Your task to perform on an android device: How much does a 2 bedroom apartment rent for in Seattle? Image 0: 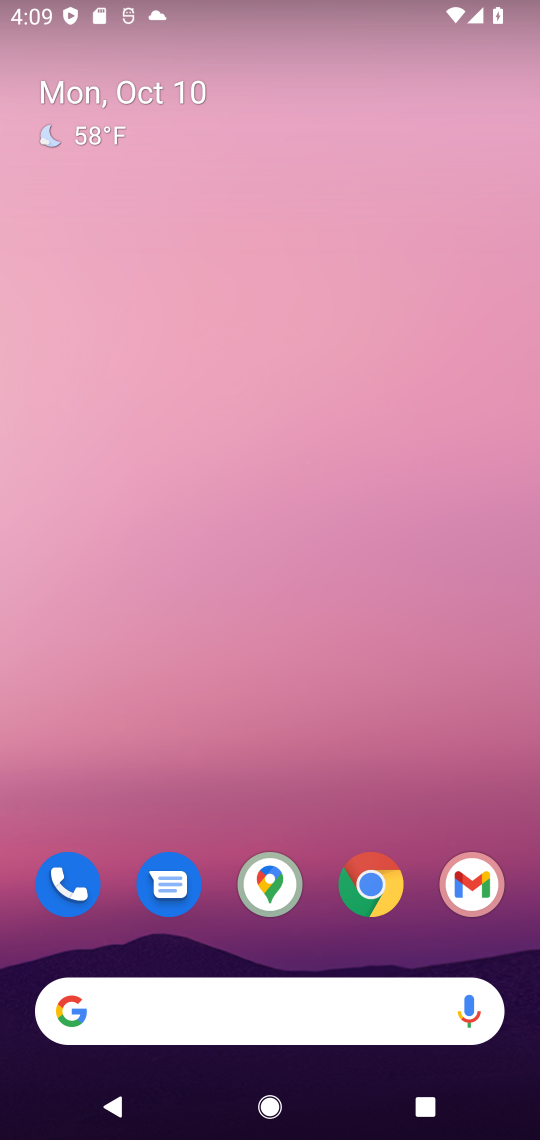
Step 0: click (381, 884)
Your task to perform on an android device: How much does a 2 bedroom apartment rent for in Seattle? Image 1: 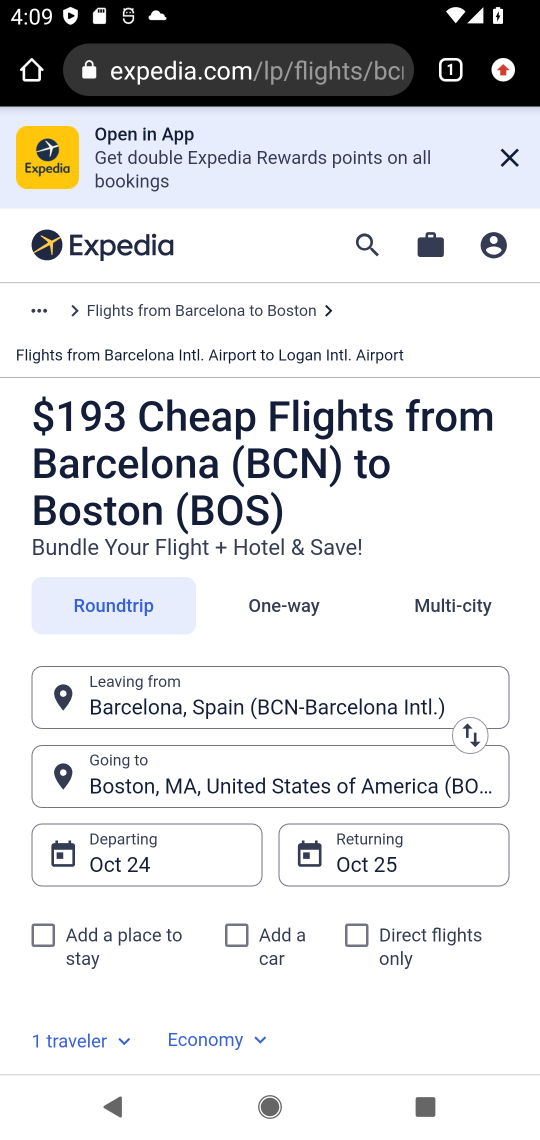
Step 1: click (246, 87)
Your task to perform on an android device: How much does a 2 bedroom apartment rent for in Seattle? Image 2: 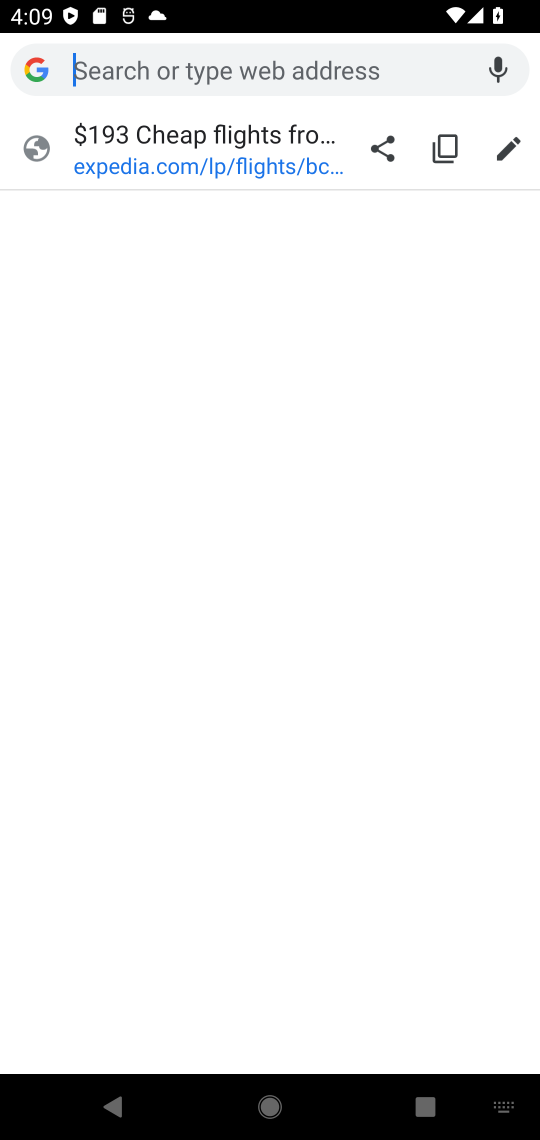
Step 2: type "How much does a 2 bedroom apartment rent for in Seattle?"
Your task to perform on an android device: How much does a 2 bedroom apartment rent for in Seattle? Image 3: 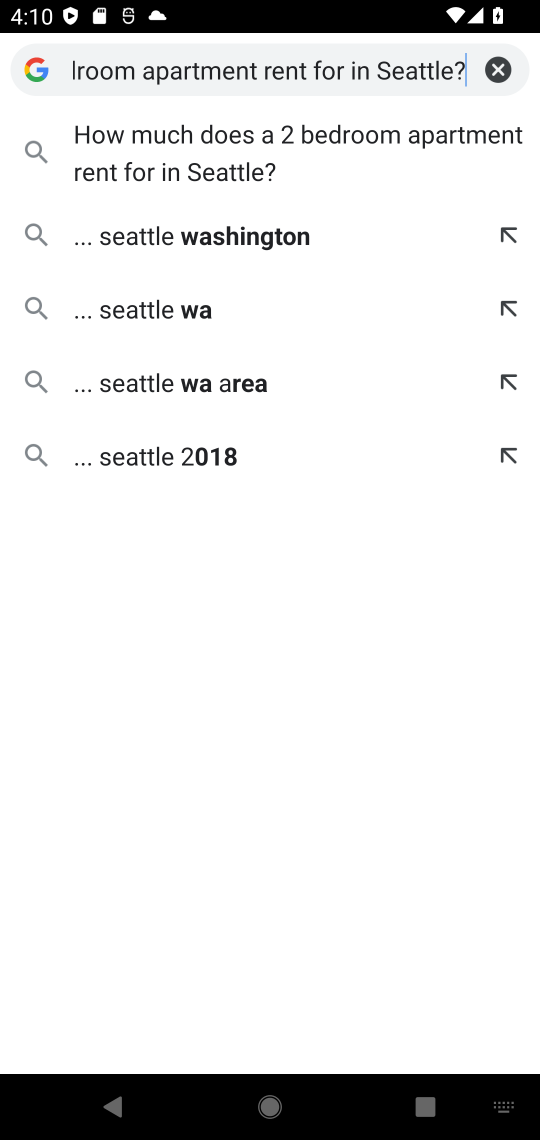
Step 3: click (225, 173)
Your task to perform on an android device: How much does a 2 bedroom apartment rent for in Seattle? Image 4: 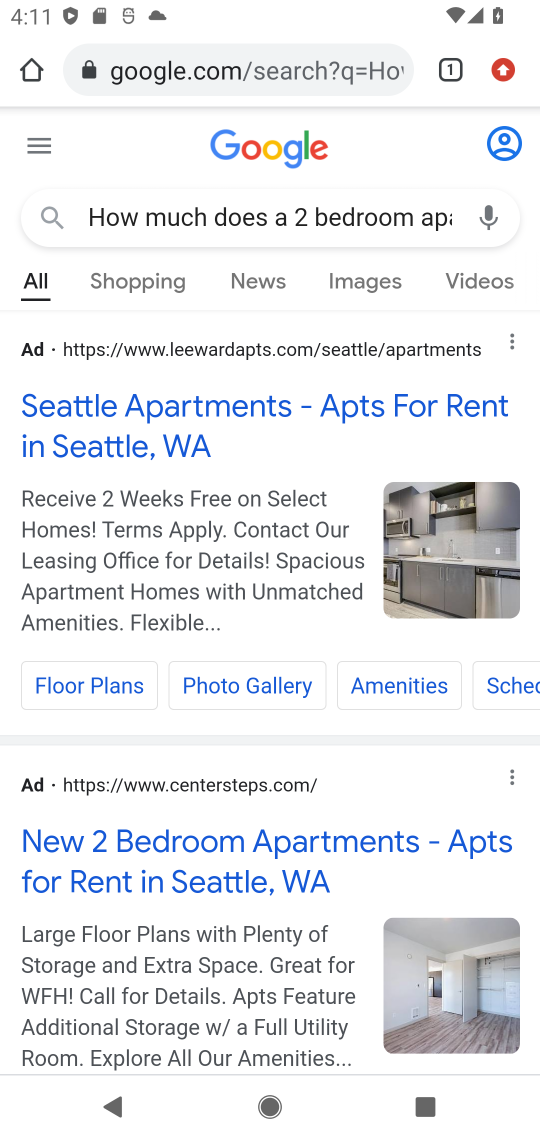
Step 4: click (141, 863)
Your task to perform on an android device: How much does a 2 bedroom apartment rent for in Seattle? Image 5: 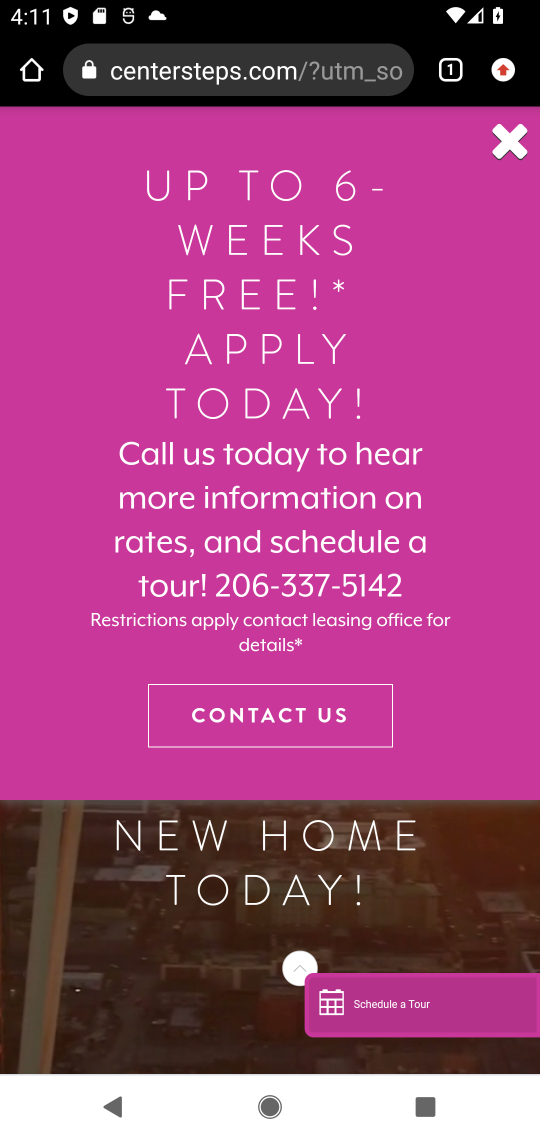
Step 5: click (509, 139)
Your task to perform on an android device: How much does a 2 bedroom apartment rent for in Seattle? Image 6: 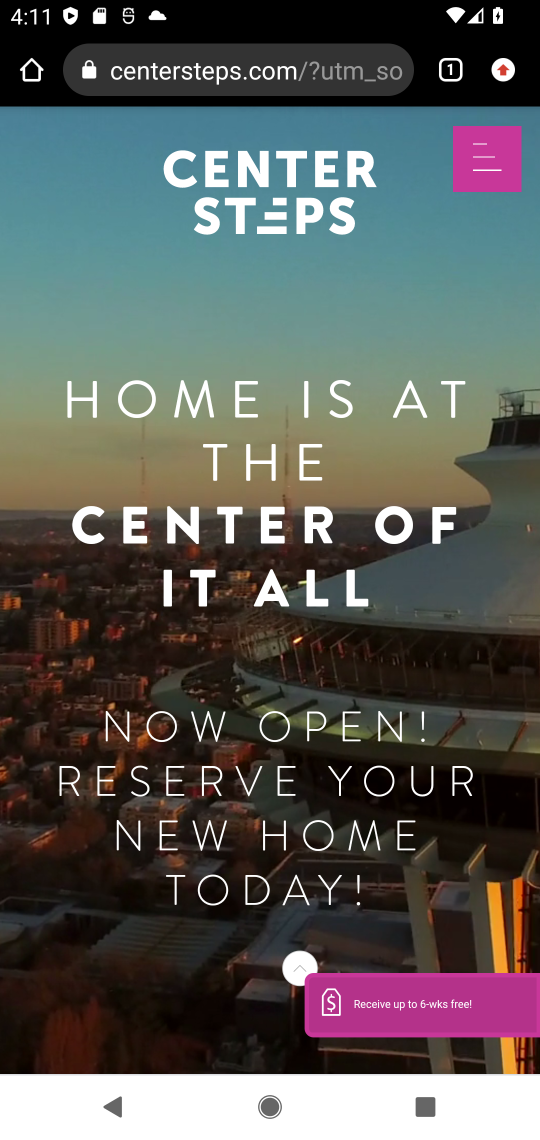
Step 6: drag from (322, 436) to (304, 244)
Your task to perform on an android device: How much does a 2 bedroom apartment rent for in Seattle? Image 7: 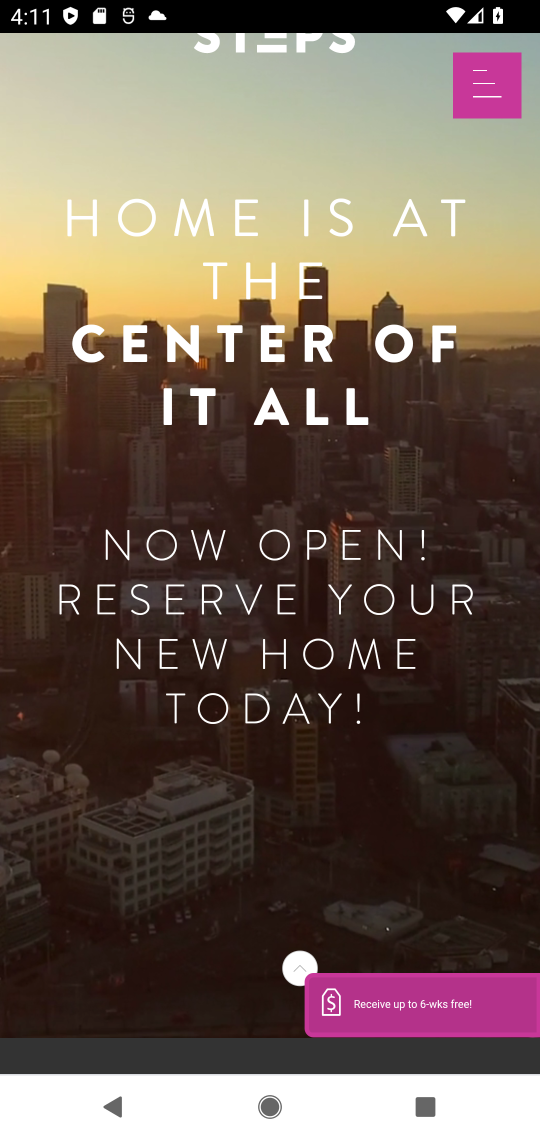
Step 7: press back button
Your task to perform on an android device: How much does a 2 bedroom apartment rent for in Seattle? Image 8: 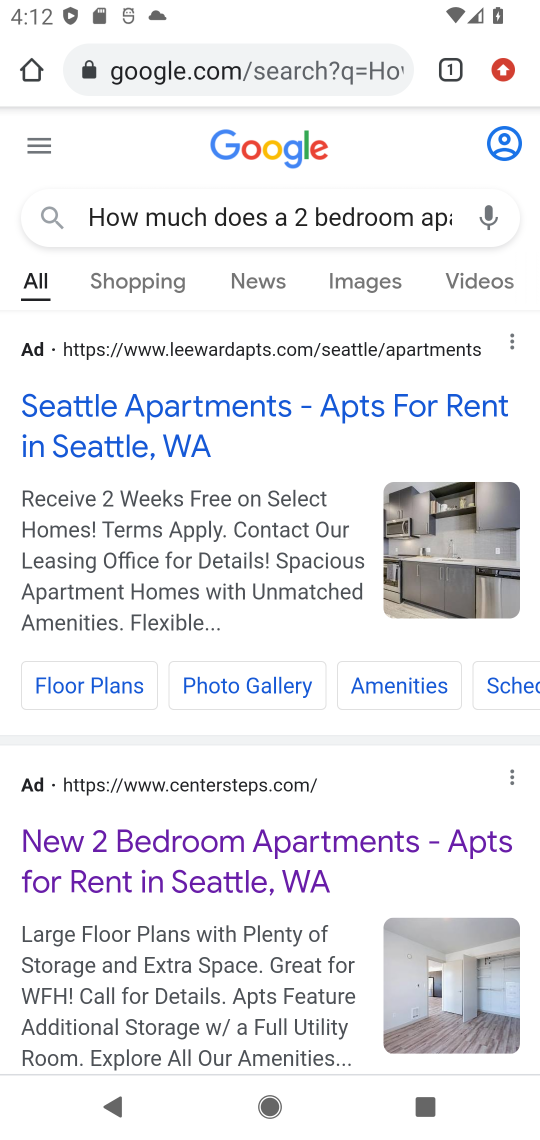
Step 8: drag from (272, 869) to (259, 336)
Your task to perform on an android device: How much does a 2 bedroom apartment rent for in Seattle? Image 9: 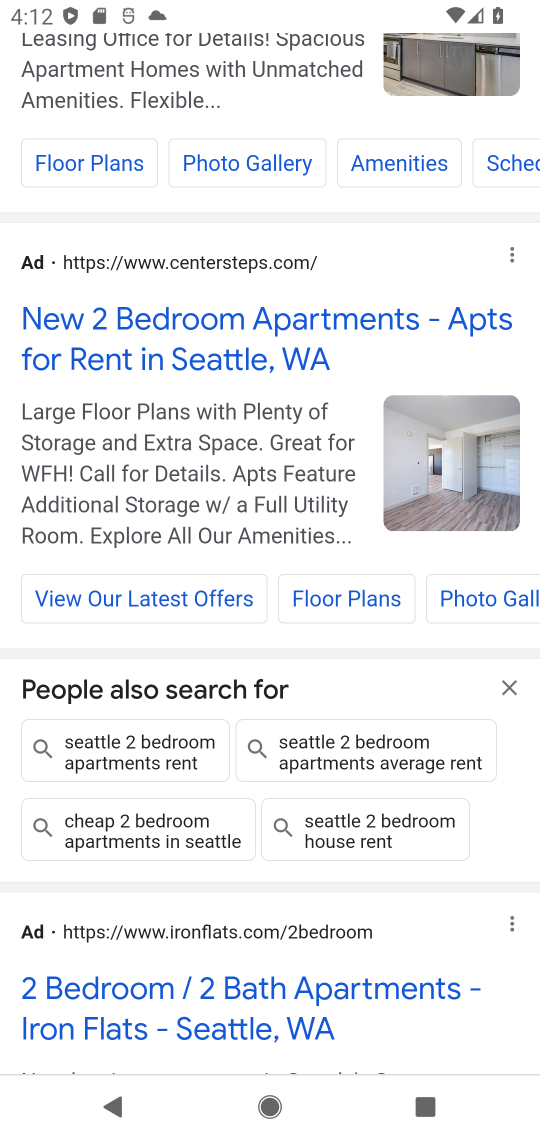
Step 9: drag from (212, 770) to (216, 344)
Your task to perform on an android device: How much does a 2 bedroom apartment rent for in Seattle? Image 10: 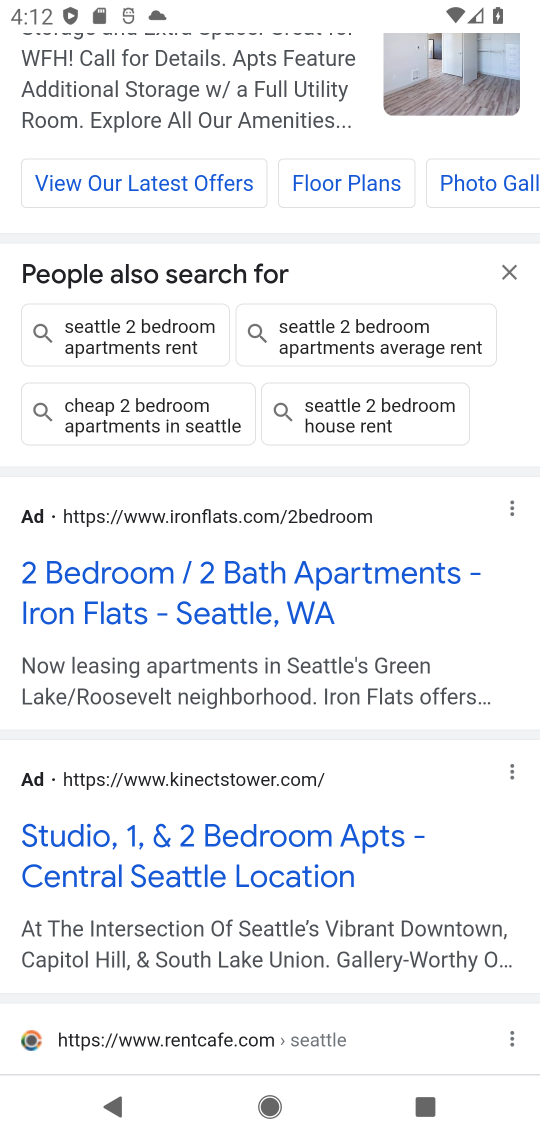
Step 10: click (178, 617)
Your task to perform on an android device: How much does a 2 bedroom apartment rent for in Seattle? Image 11: 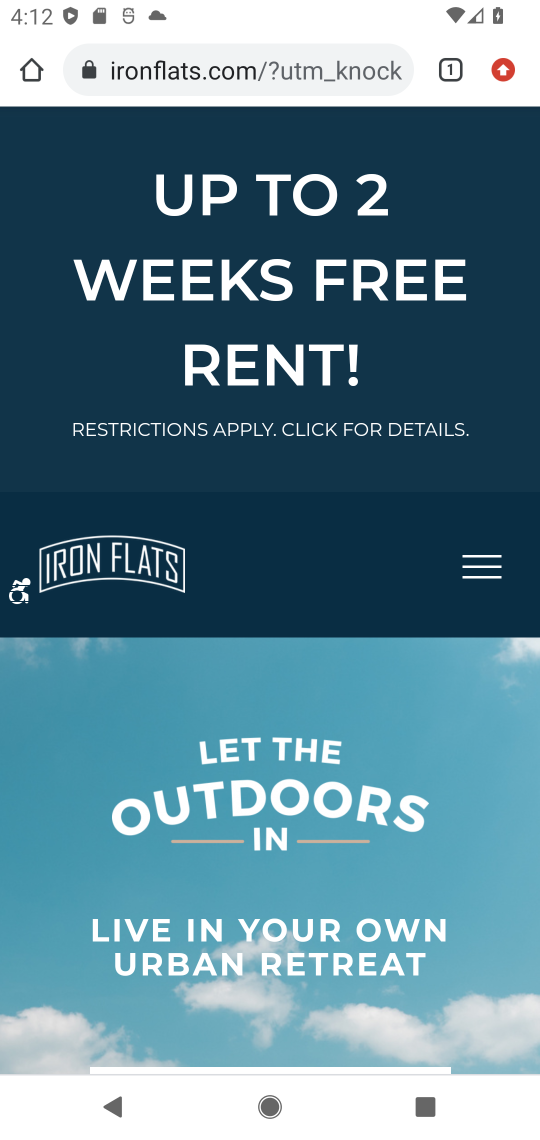
Step 11: drag from (219, 859) to (228, 213)
Your task to perform on an android device: How much does a 2 bedroom apartment rent for in Seattle? Image 12: 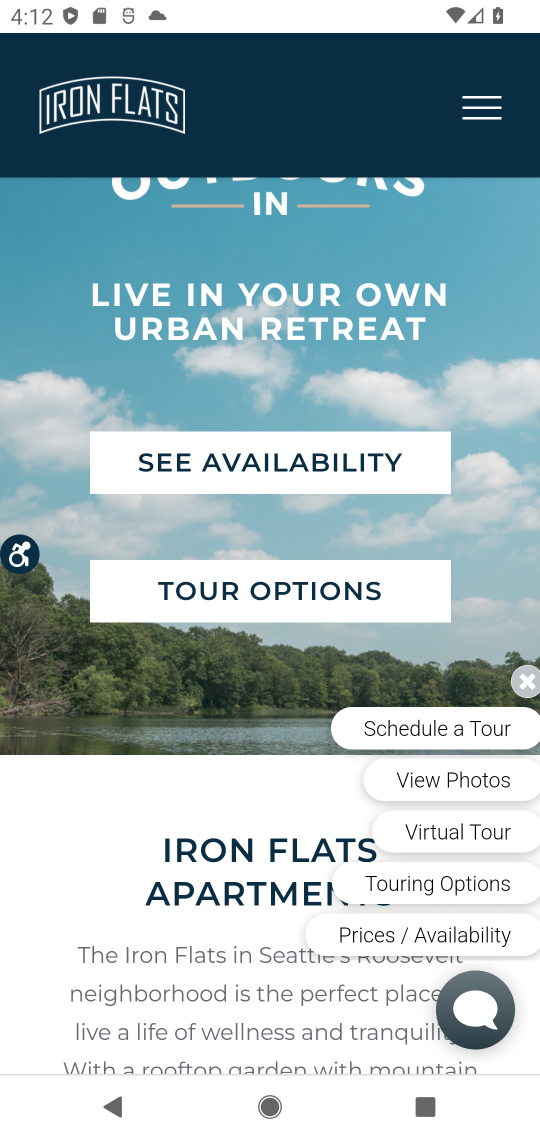
Step 12: drag from (153, 722) to (193, 87)
Your task to perform on an android device: How much does a 2 bedroom apartment rent for in Seattle? Image 13: 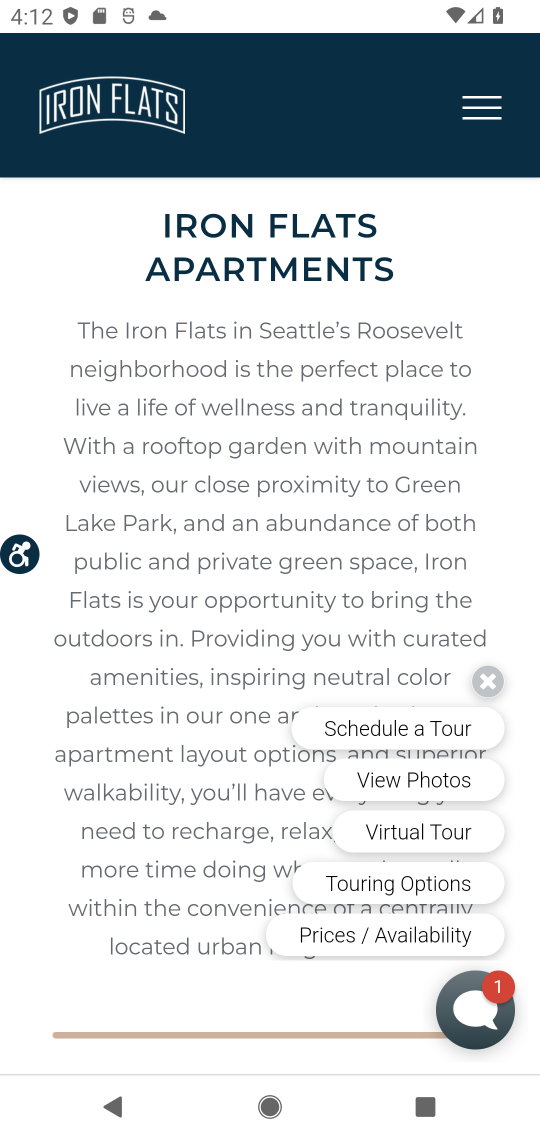
Step 13: drag from (103, 726) to (182, 189)
Your task to perform on an android device: How much does a 2 bedroom apartment rent for in Seattle? Image 14: 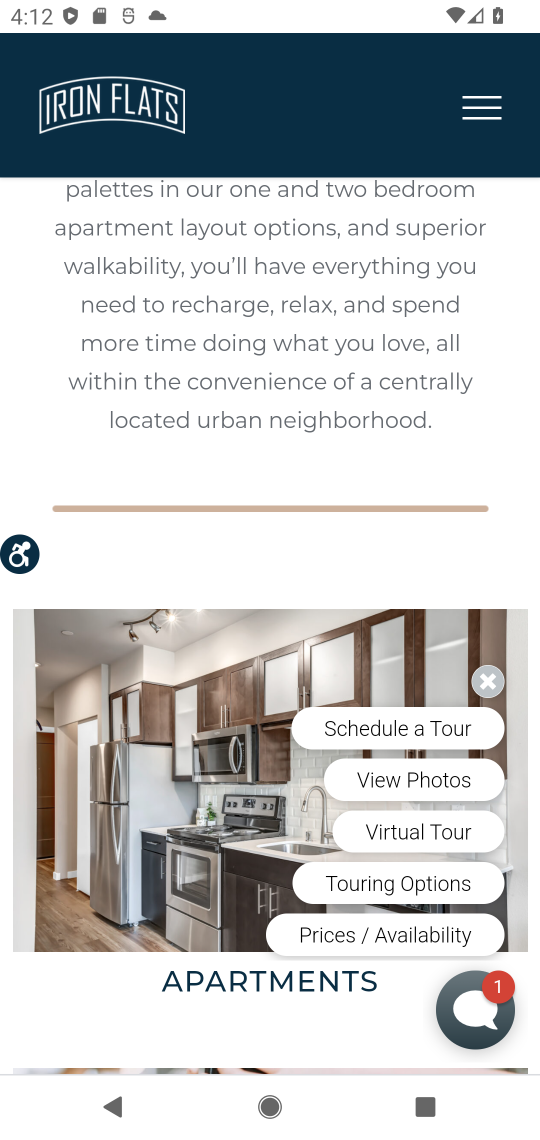
Step 14: drag from (182, 189) to (204, 0)
Your task to perform on an android device: How much does a 2 bedroom apartment rent for in Seattle? Image 15: 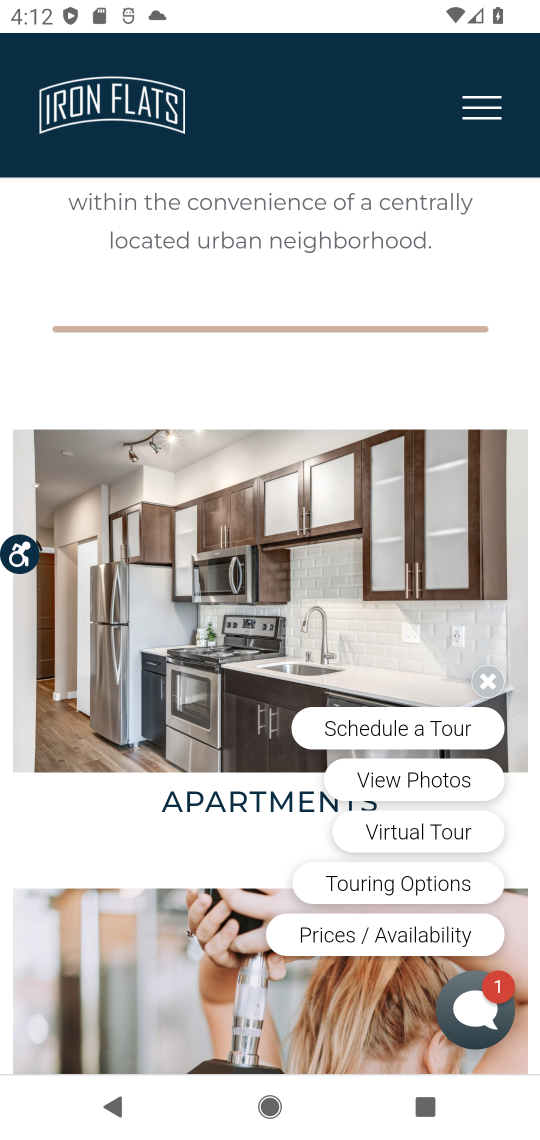
Step 15: drag from (193, 657) to (183, 133)
Your task to perform on an android device: How much does a 2 bedroom apartment rent for in Seattle? Image 16: 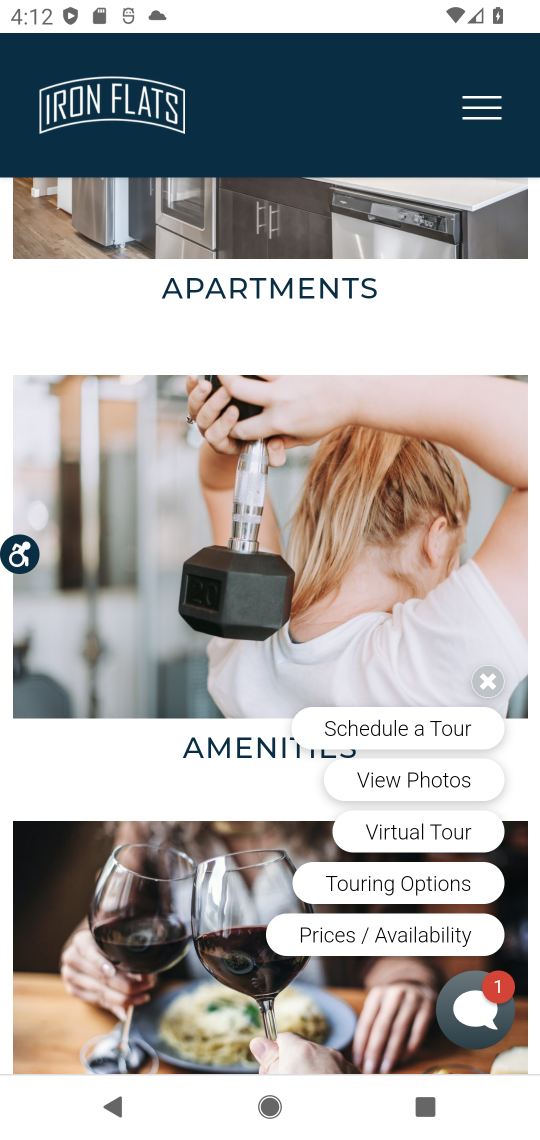
Step 16: drag from (141, 928) to (161, 117)
Your task to perform on an android device: How much does a 2 bedroom apartment rent for in Seattle? Image 17: 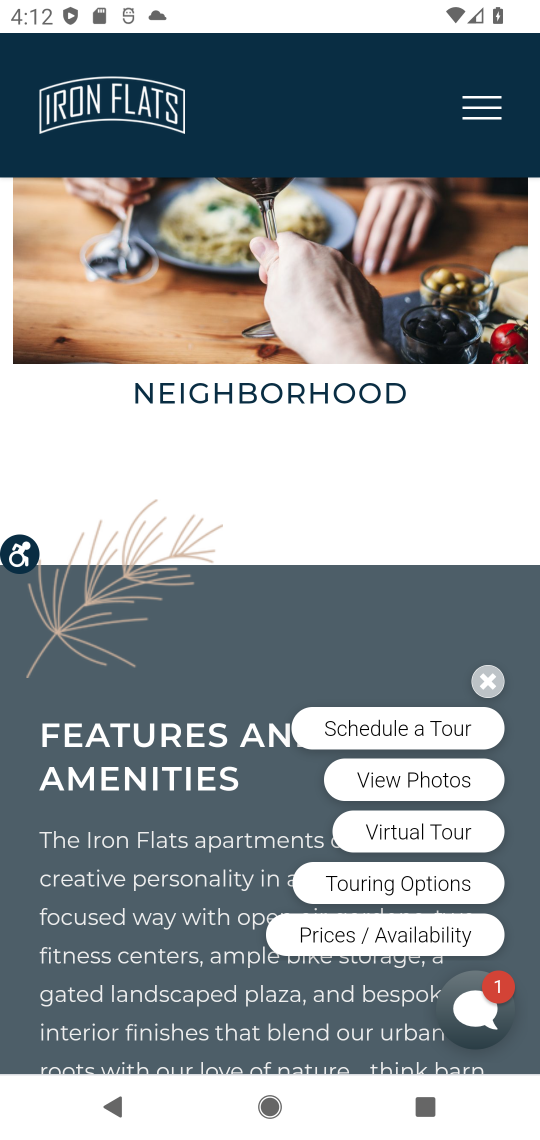
Step 17: press back button
Your task to perform on an android device: How much does a 2 bedroom apartment rent for in Seattle? Image 18: 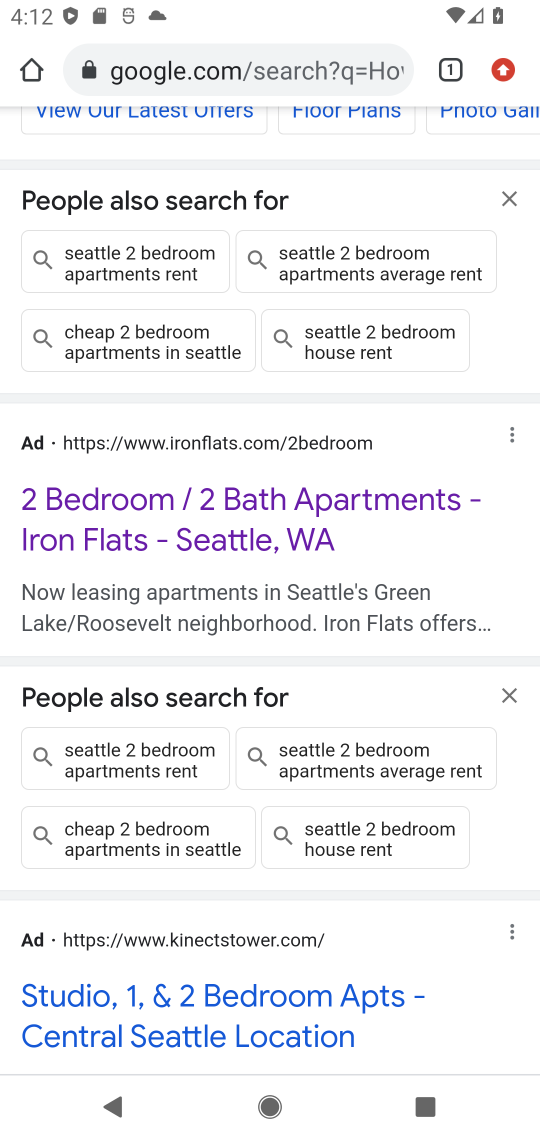
Step 18: drag from (184, 264) to (167, 669)
Your task to perform on an android device: How much does a 2 bedroom apartment rent for in Seattle? Image 19: 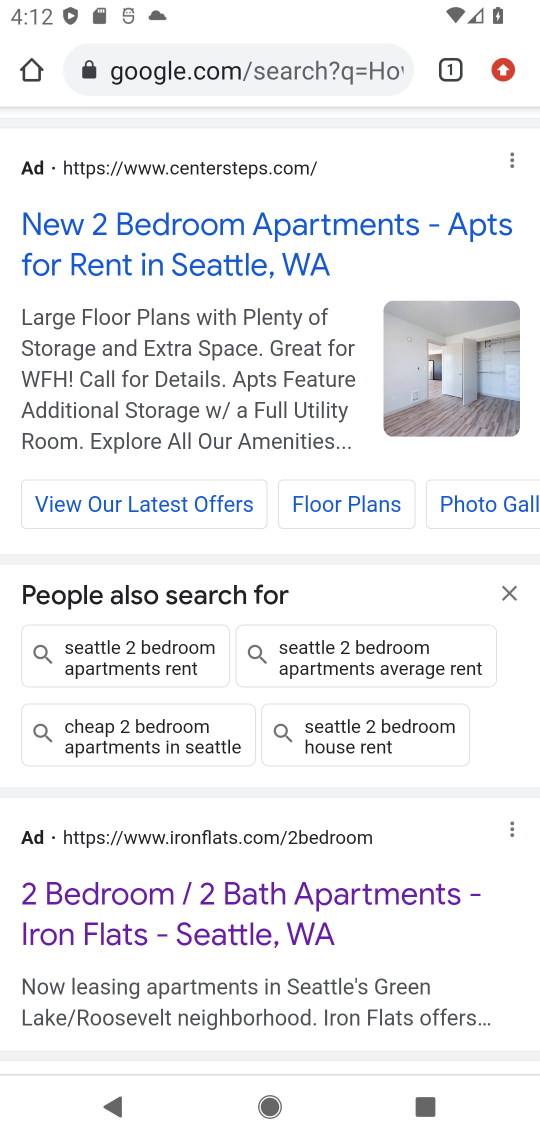
Step 19: click (143, 269)
Your task to perform on an android device: How much does a 2 bedroom apartment rent for in Seattle? Image 20: 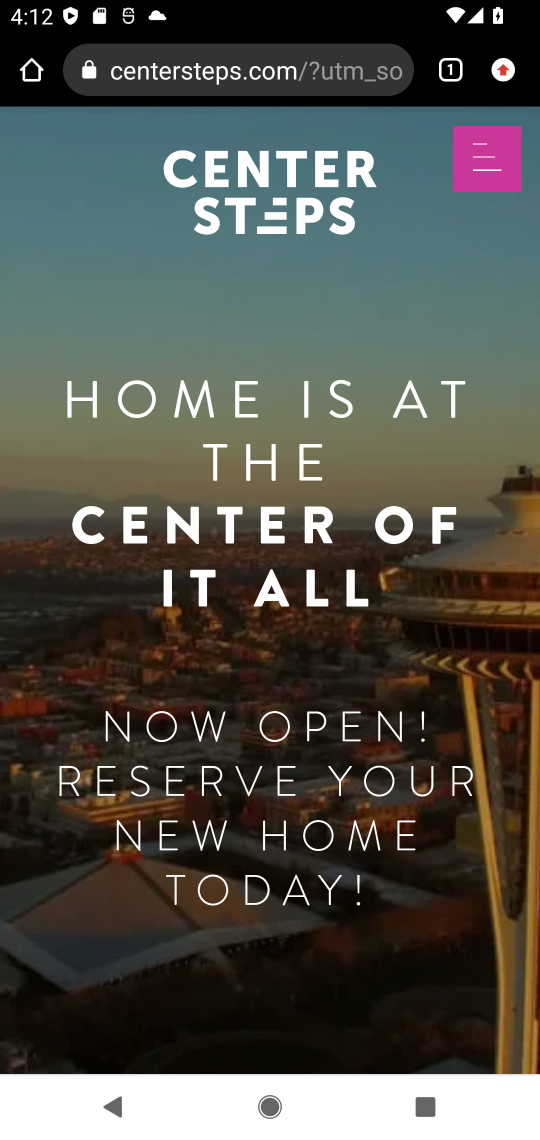
Step 20: drag from (274, 833) to (281, 173)
Your task to perform on an android device: How much does a 2 bedroom apartment rent for in Seattle? Image 21: 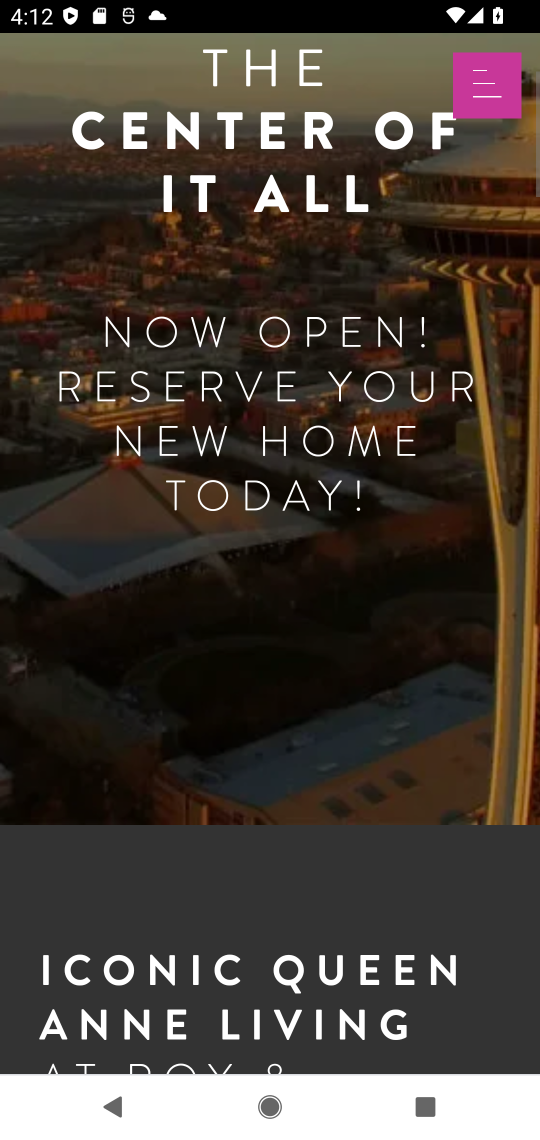
Step 21: press back button
Your task to perform on an android device: How much does a 2 bedroom apartment rent for in Seattle? Image 22: 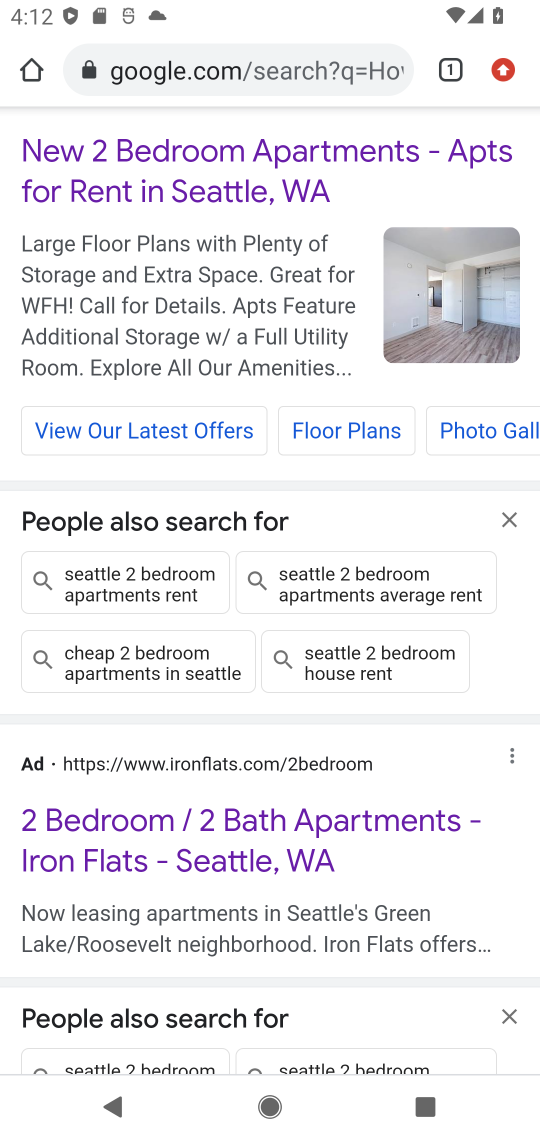
Step 22: drag from (341, 913) to (284, 191)
Your task to perform on an android device: How much does a 2 bedroom apartment rent for in Seattle? Image 23: 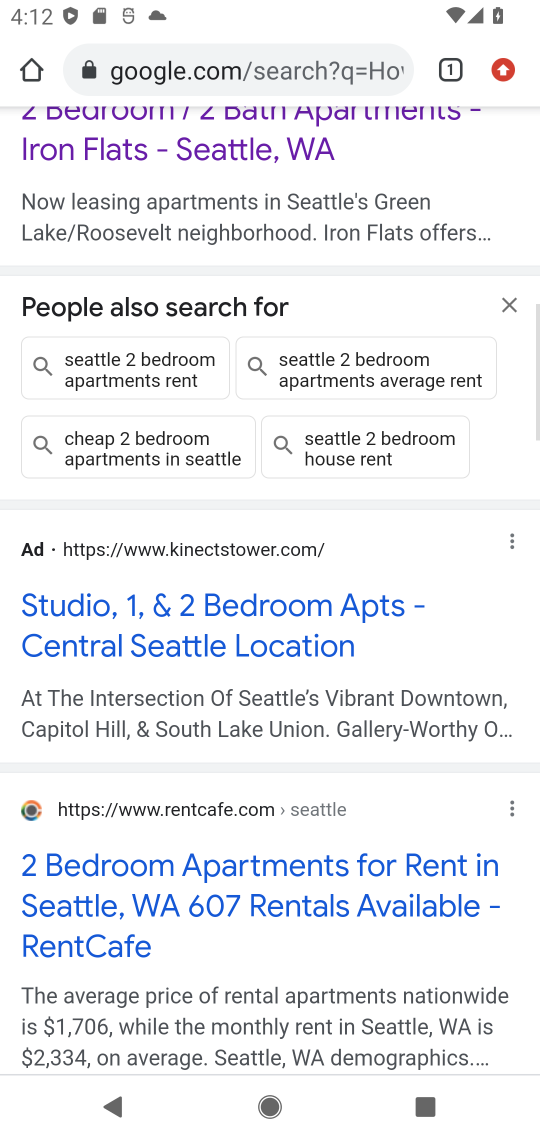
Step 23: drag from (215, 745) to (184, 196)
Your task to perform on an android device: How much does a 2 bedroom apartment rent for in Seattle? Image 24: 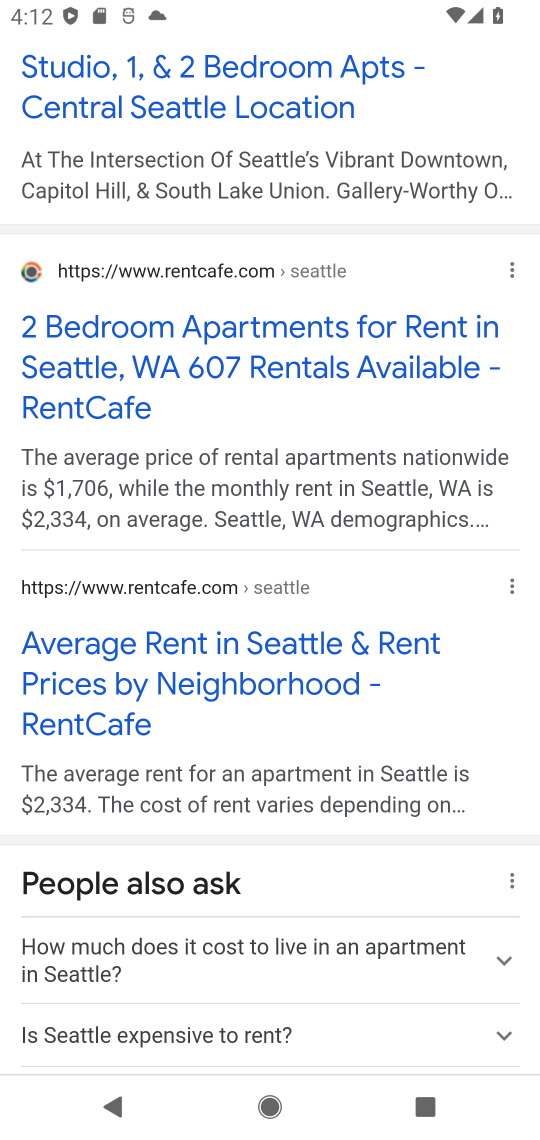
Step 24: click (118, 360)
Your task to perform on an android device: How much does a 2 bedroom apartment rent for in Seattle? Image 25: 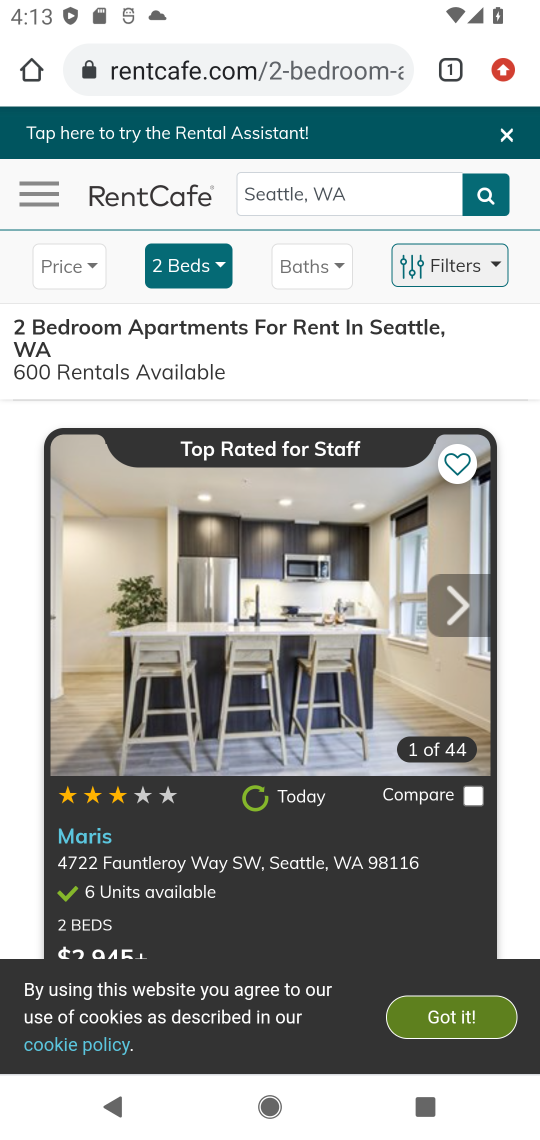
Step 25: task complete